Your task to perform on an android device: Show me the alarms in the clock app Image 0: 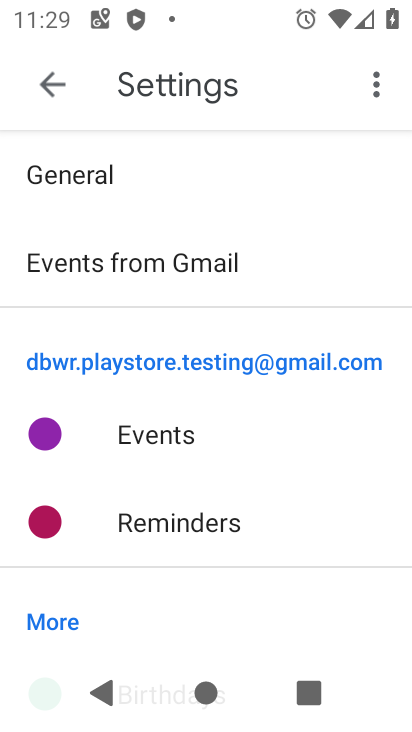
Step 0: press home button
Your task to perform on an android device: Show me the alarms in the clock app Image 1: 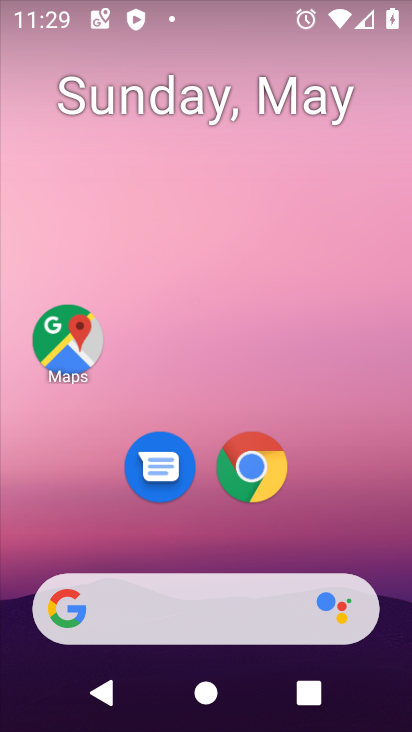
Step 1: drag from (338, 530) to (328, 9)
Your task to perform on an android device: Show me the alarms in the clock app Image 2: 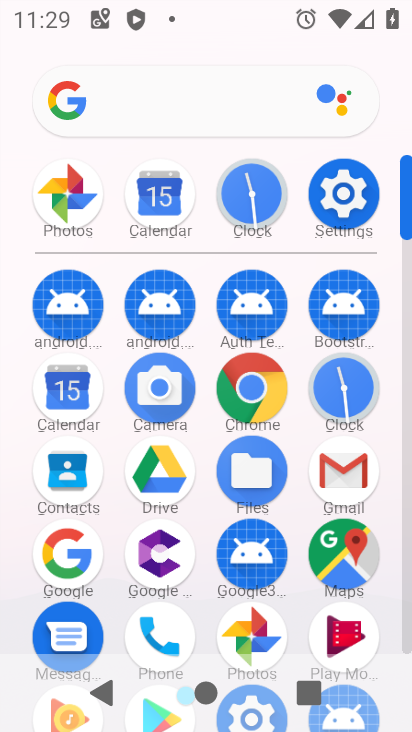
Step 2: click (257, 189)
Your task to perform on an android device: Show me the alarms in the clock app Image 3: 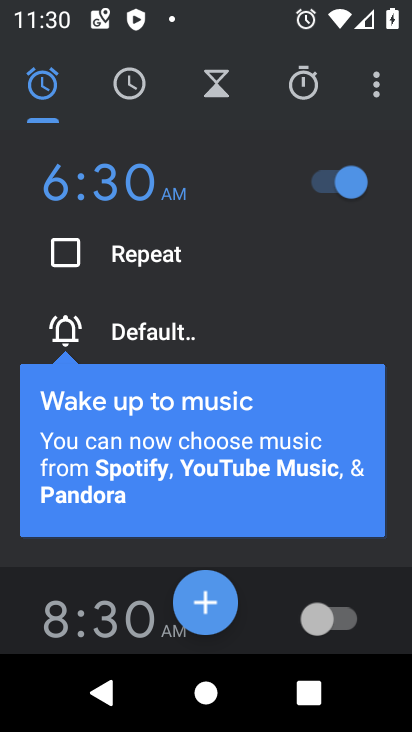
Step 3: task complete